Your task to perform on an android device: Open Youtube and go to "Your channel" Image 0: 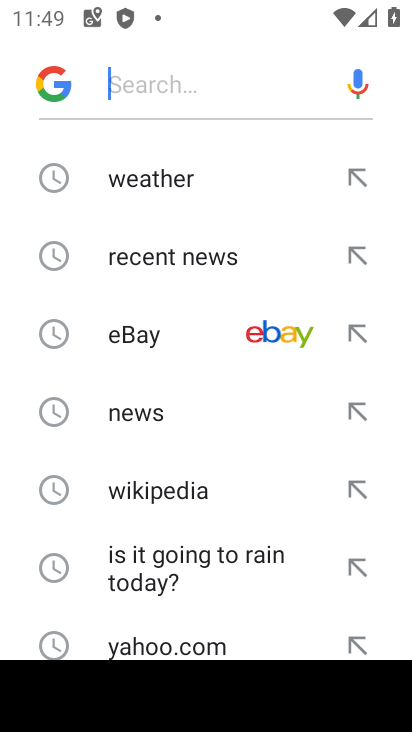
Step 0: press back button
Your task to perform on an android device: Open Youtube and go to "Your channel" Image 1: 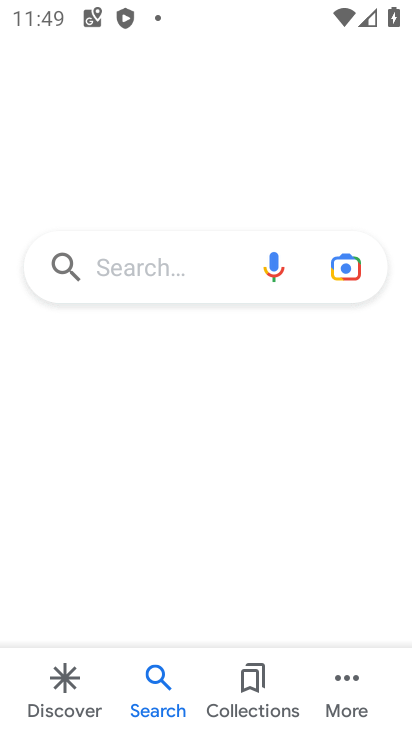
Step 1: press back button
Your task to perform on an android device: Open Youtube and go to "Your channel" Image 2: 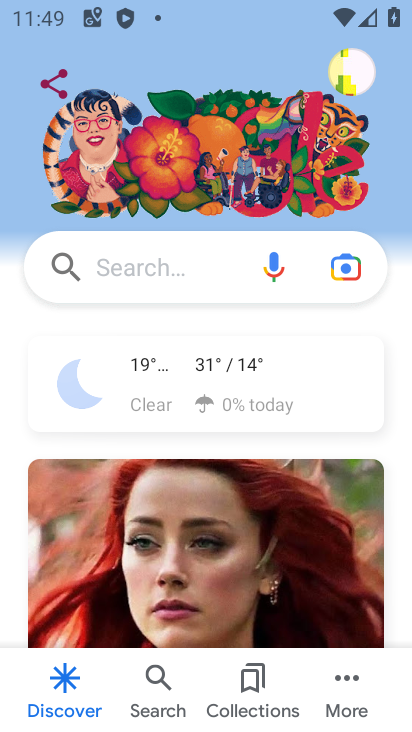
Step 2: press back button
Your task to perform on an android device: Open Youtube and go to "Your channel" Image 3: 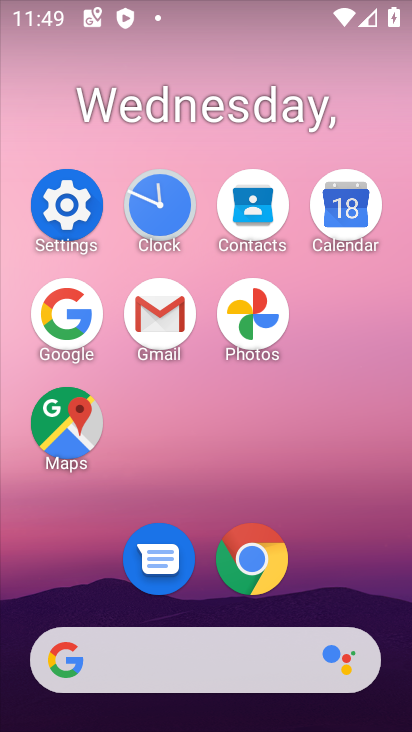
Step 3: drag from (332, 559) to (321, 219)
Your task to perform on an android device: Open Youtube and go to "Your channel" Image 4: 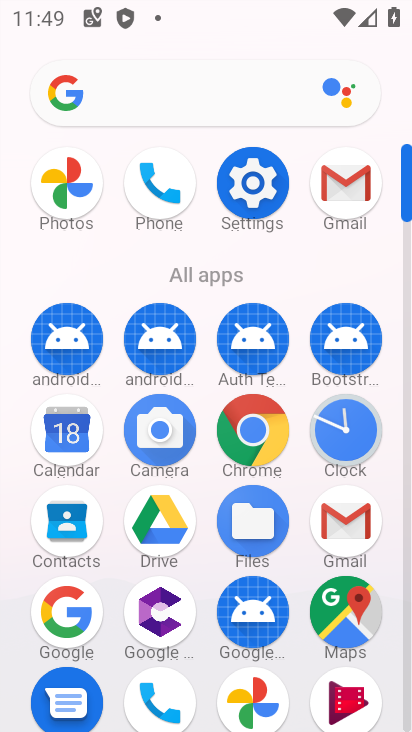
Step 4: drag from (181, 461) to (253, 169)
Your task to perform on an android device: Open Youtube and go to "Your channel" Image 5: 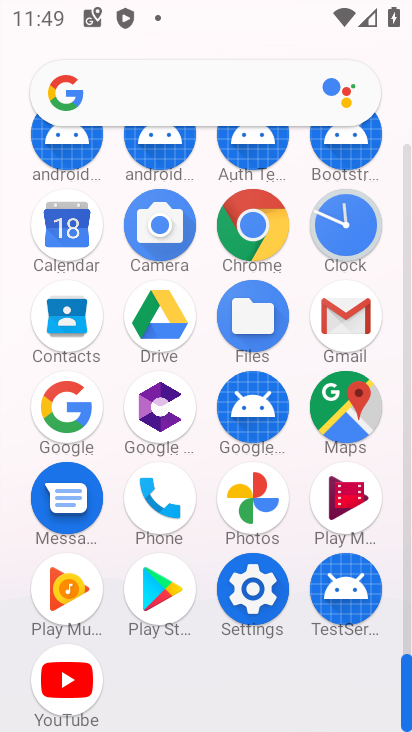
Step 5: click (77, 677)
Your task to perform on an android device: Open Youtube and go to "Your channel" Image 6: 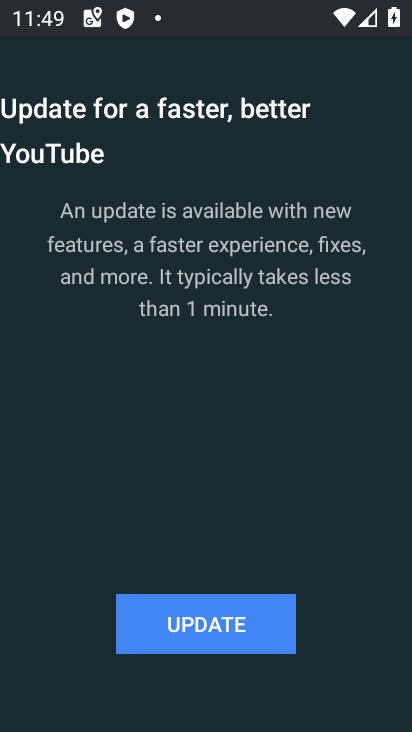
Step 6: click (238, 624)
Your task to perform on an android device: Open Youtube and go to "Your channel" Image 7: 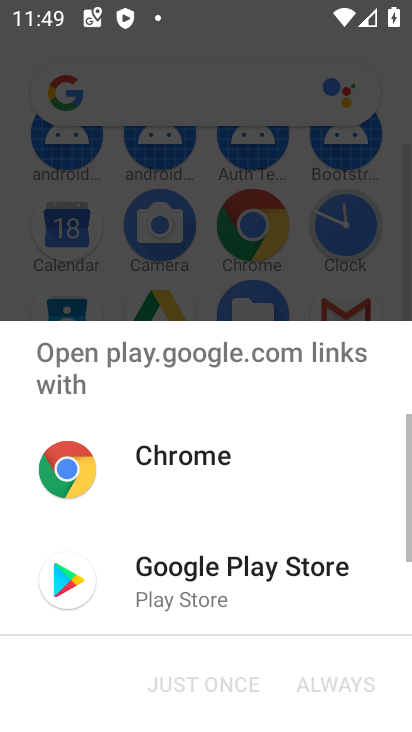
Step 7: click (223, 590)
Your task to perform on an android device: Open Youtube and go to "Your channel" Image 8: 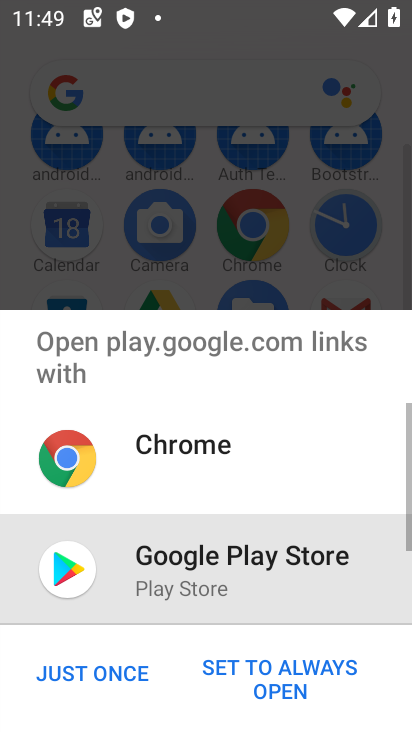
Step 8: click (223, 590)
Your task to perform on an android device: Open Youtube and go to "Your channel" Image 9: 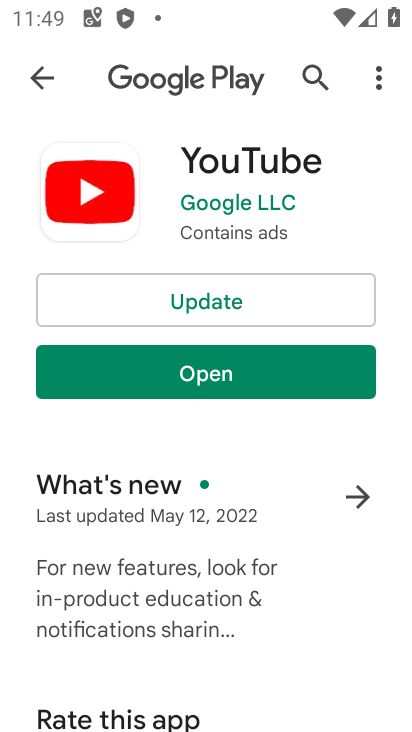
Step 9: click (282, 290)
Your task to perform on an android device: Open Youtube and go to "Your channel" Image 10: 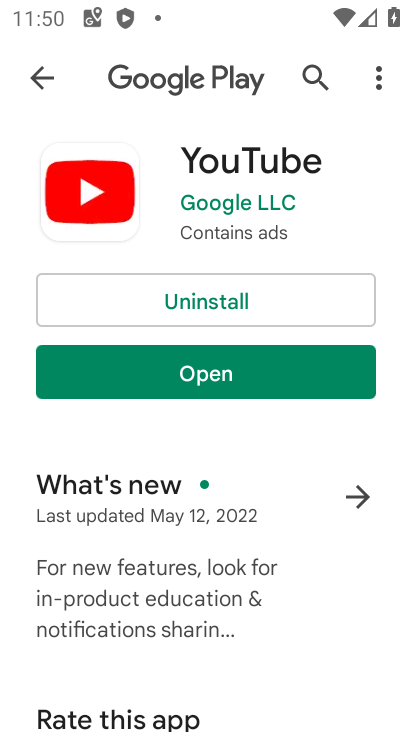
Step 10: click (305, 358)
Your task to perform on an android device: Open Youtube and go to "Your channel" Image 11: 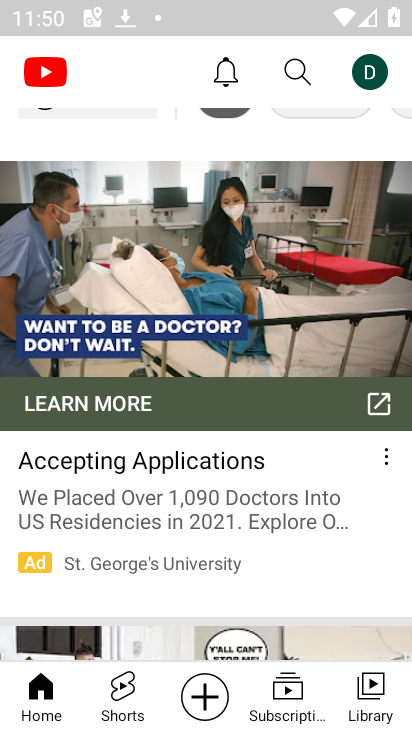
Step 11: click (374, 69)
Your task to perform on an android device: Open Youtube and go to "Your channel" Image 12: 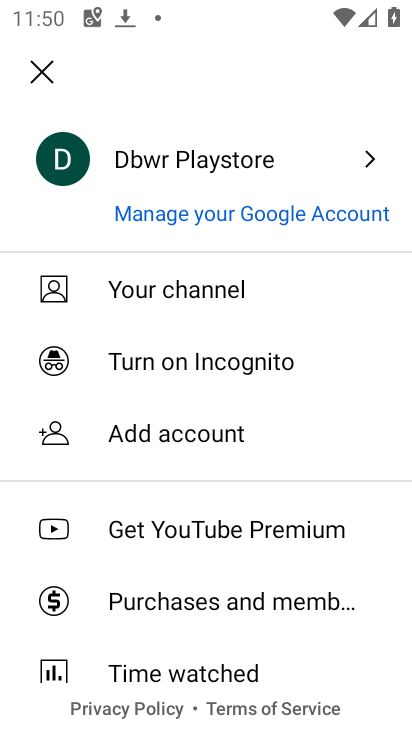
Step 12: click (256, 312)
Your task to perform on an android device: Open Youtube and go to "Your channel" Image 13: 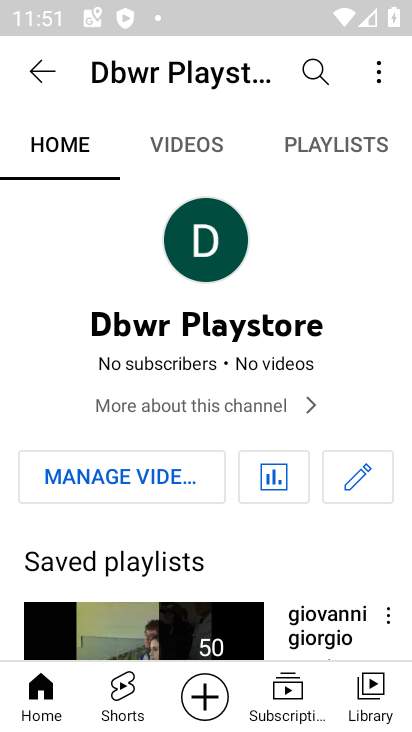
Step 13: task complete